Your task to perform on an android device: add a label to a message in the gmail app Image 0: 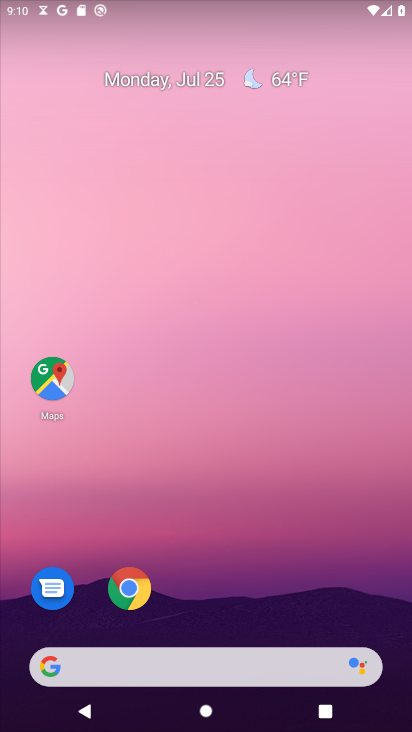
Step 0: drag from (192, 675) to (200, 166)
Your task to perform on an android device: add a label to a message in the gmail app Image 1: 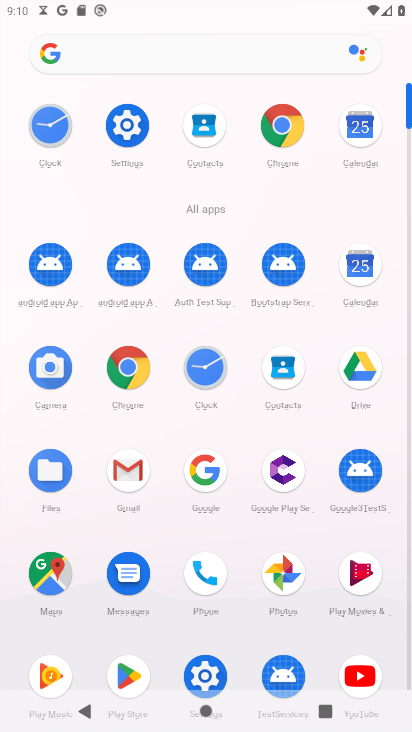
Step 1: click (126, 462)
Your task to perform on an android device: add a label to a message in the gmail app Image 2: 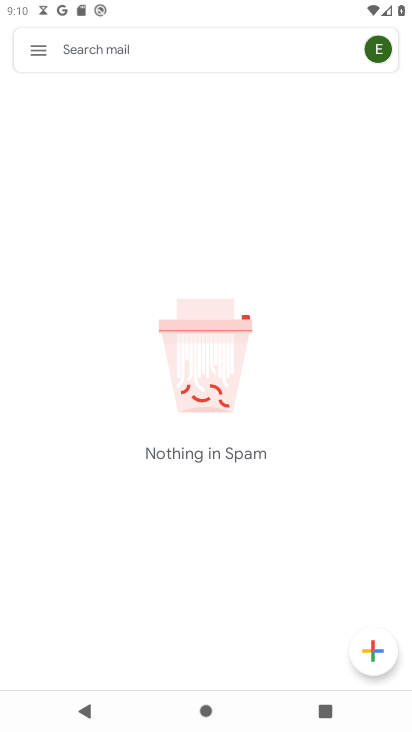
Step 2: click (28, 53)
Your task to perform on an android device: add a label to a message in the gmail app Image 3: 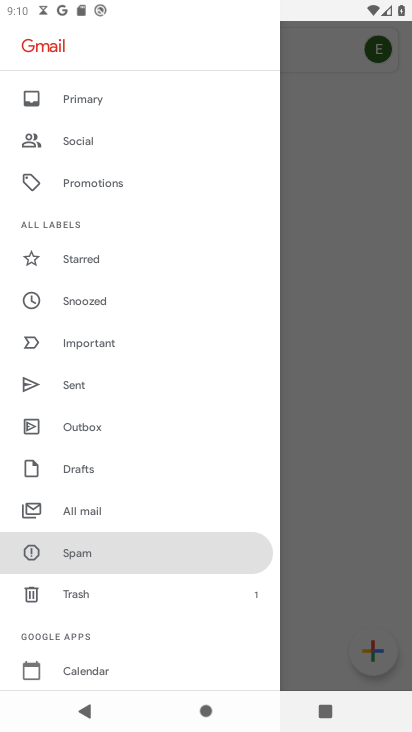
Step 3: click (87, 510)
Your task to perform on an android device: add a label to a message in the gmail app Image 4: 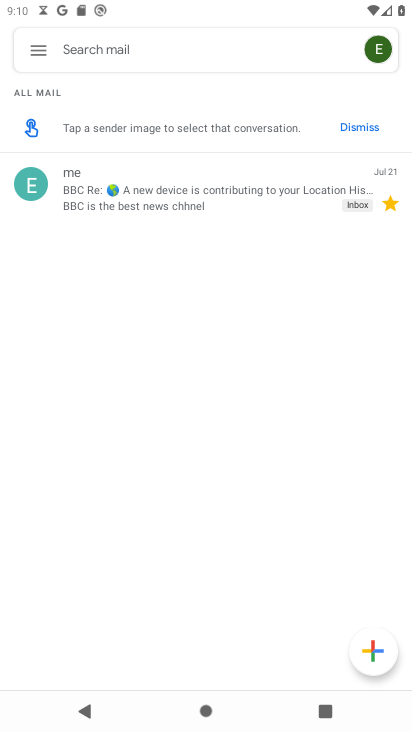
Step 4: click (35, 188)
Your task to perform on an android device: add a label to a message in the gmail app Image 5: 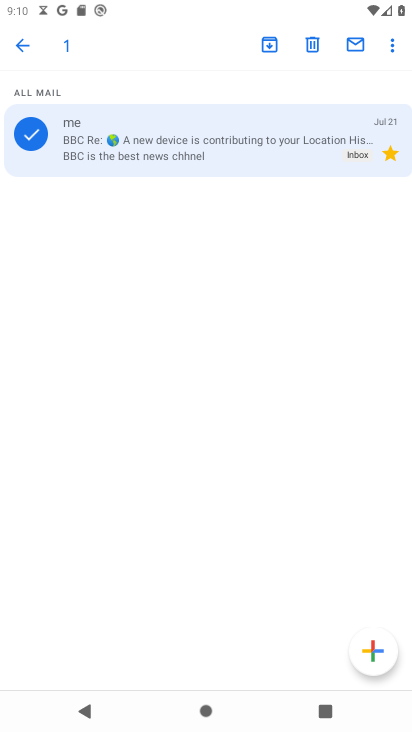
Step 5: click (388, 52)
Your task to perform on an android device: add a label to a message in the gmail app Image 6: 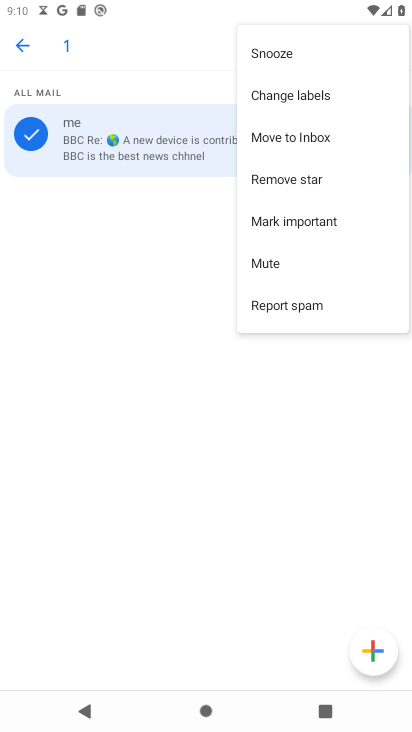
Step 6: click (288, 102)
Your task to perform on an android device: add a label to a message in the gmail app Image 7: 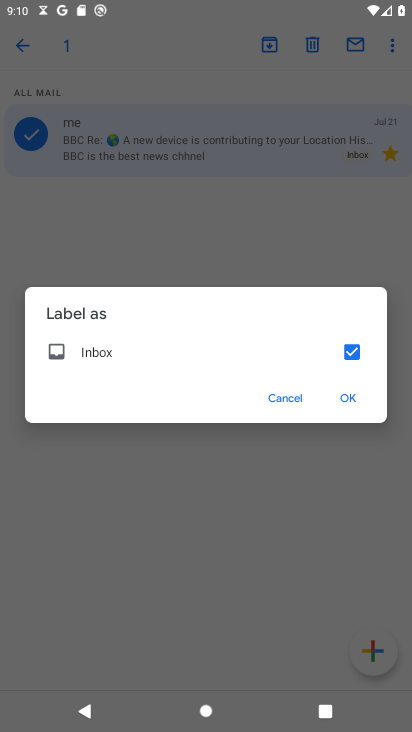
Step 7: click (350, 403)
Your task to perform on an android device: add a label to a message in the gmail app Image 8: 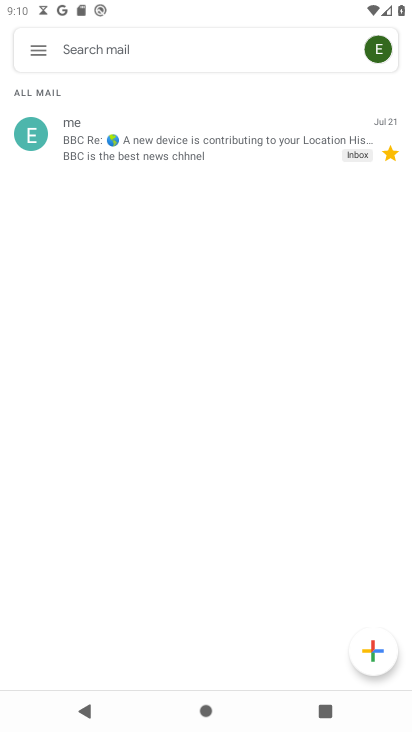
Step 8: task complete